Your task to perform on an android device: Open Chrome and go to settings Image 0: 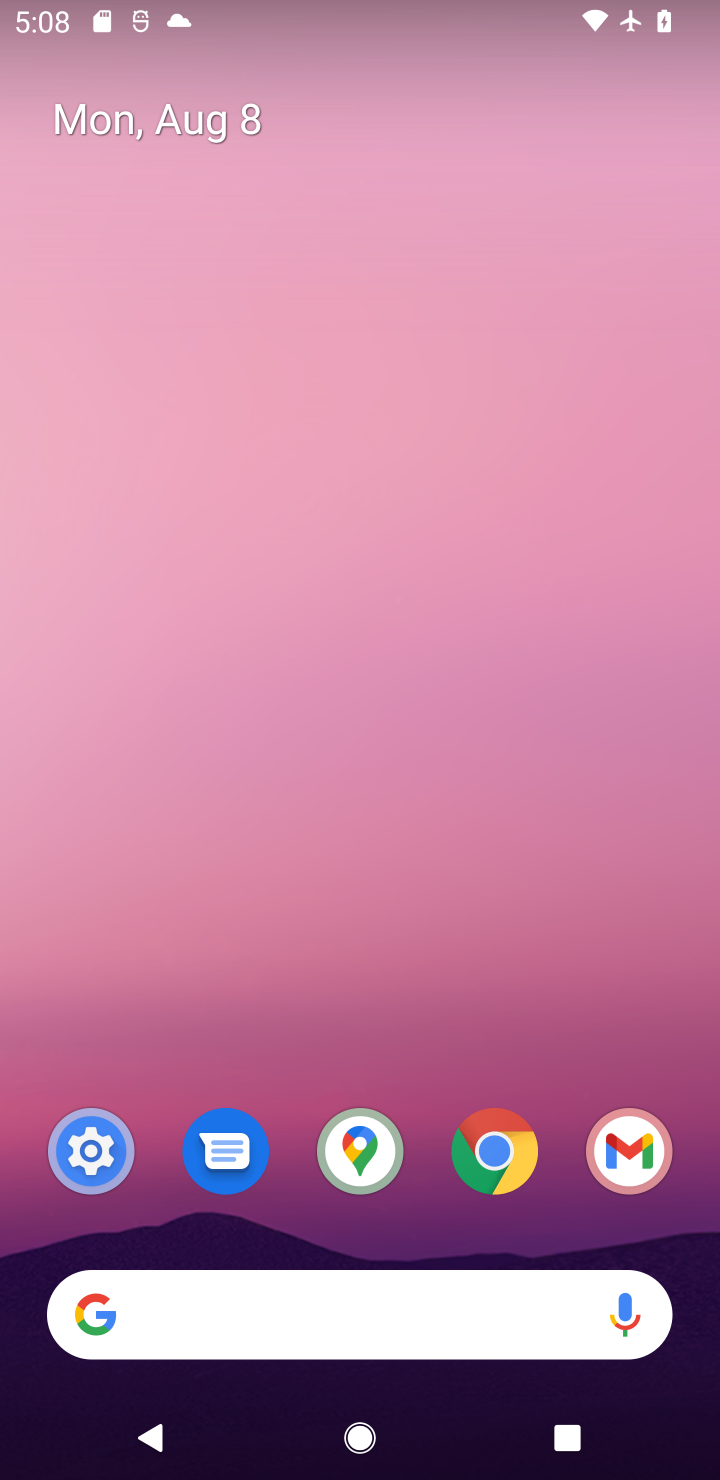
Step 0: click (480, 1157)
Your task to perform on an android device: Open Chrome and go to settings Image 1: 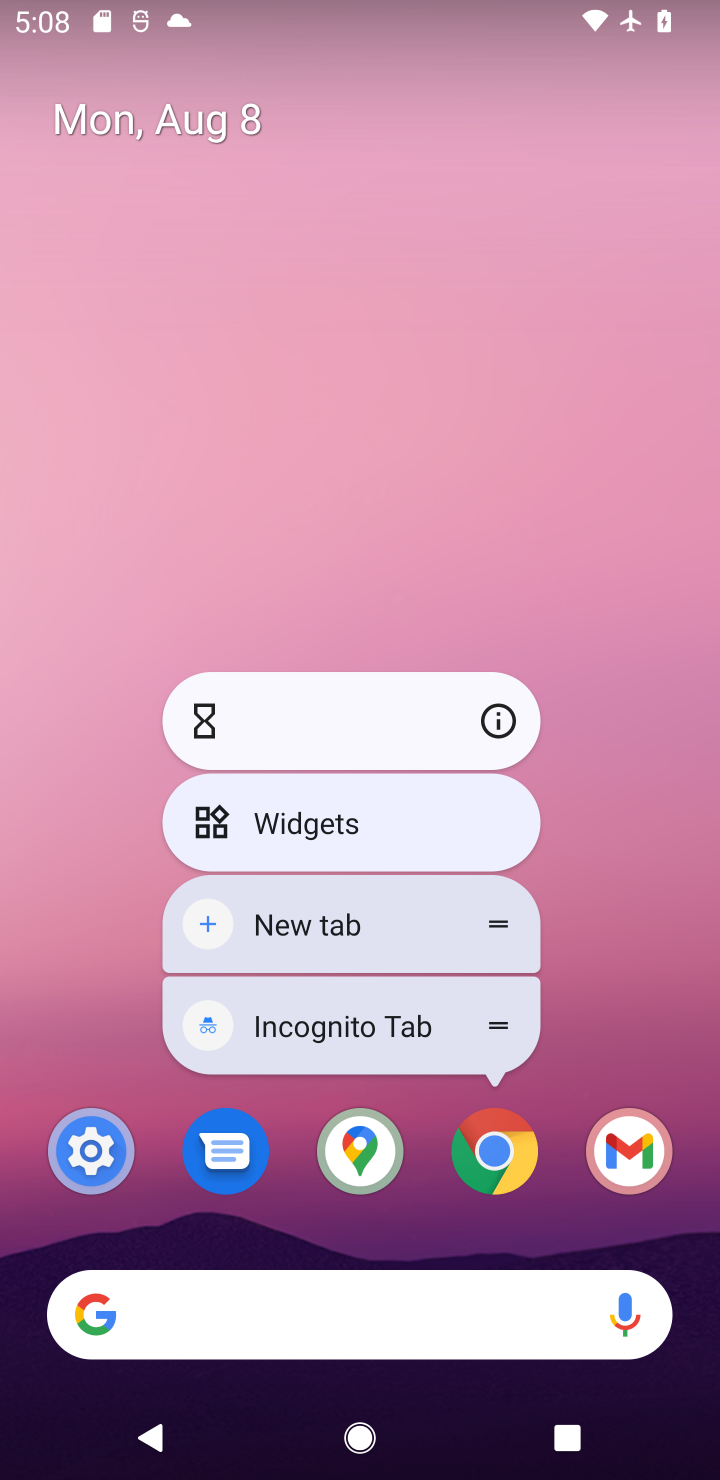
Step 1: click (482, 1155)
Your task to perform on an android device: Open Chrome and go to settings Image 2: 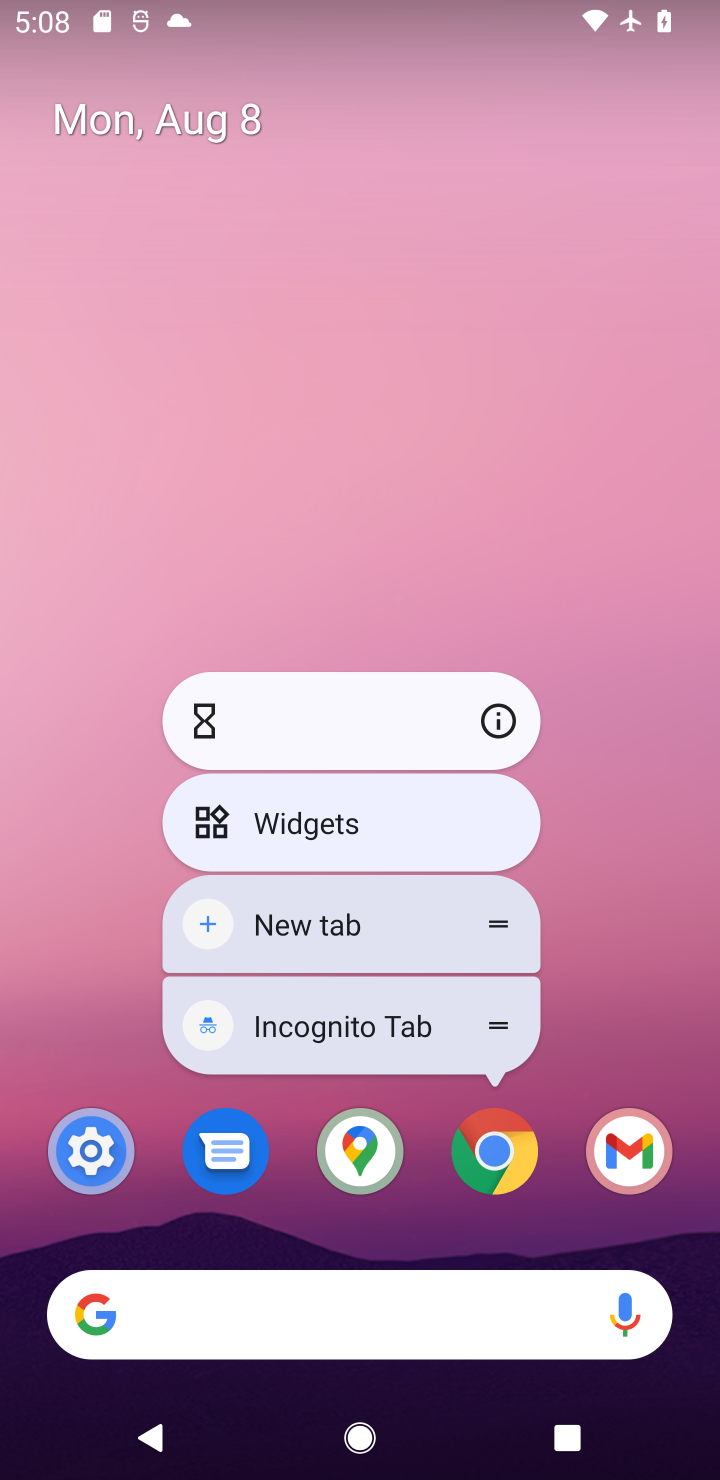
Step 2: click (482, 1155)
Your task to perform on an android device: Open Chrome and go to settings Image 3: 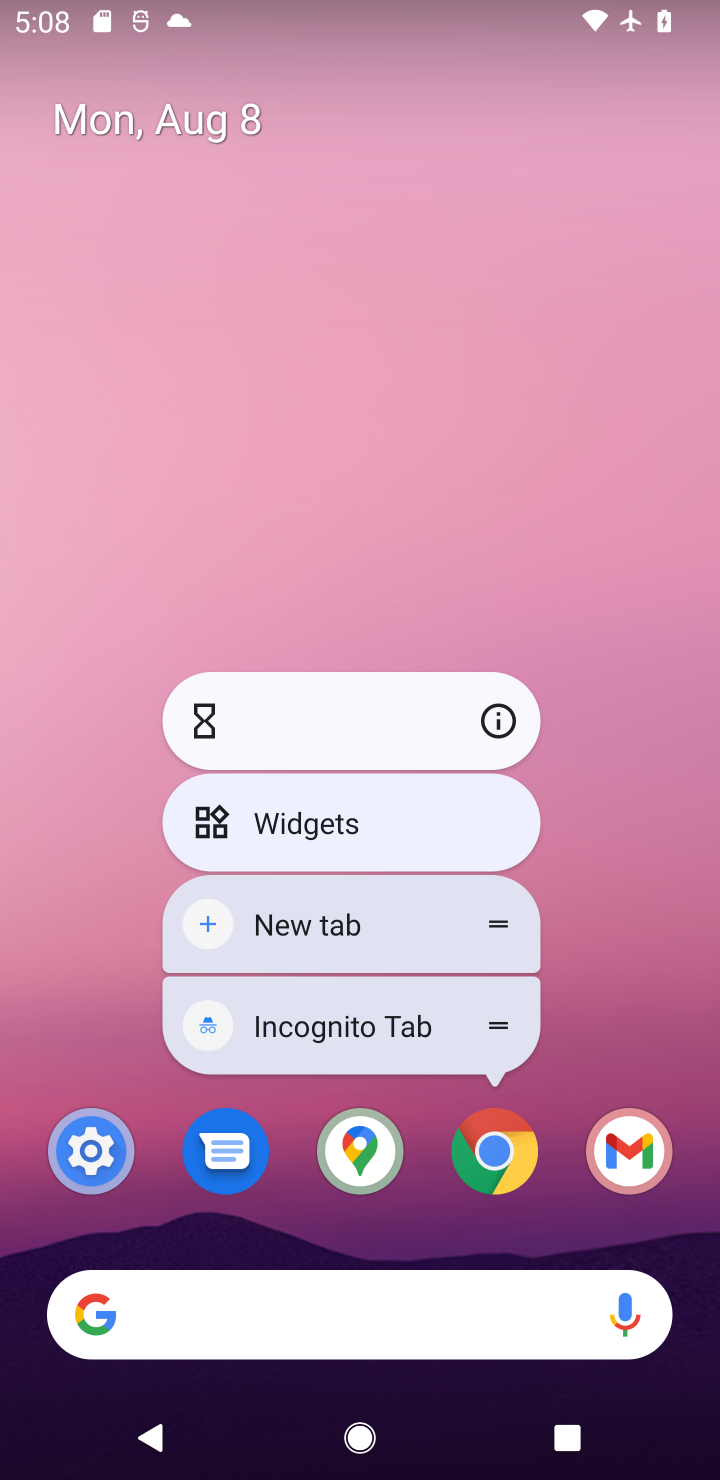
Step 3: click (482, 1155)
Your task to perform on an android device: Open Chrome and go to settings Image 4: 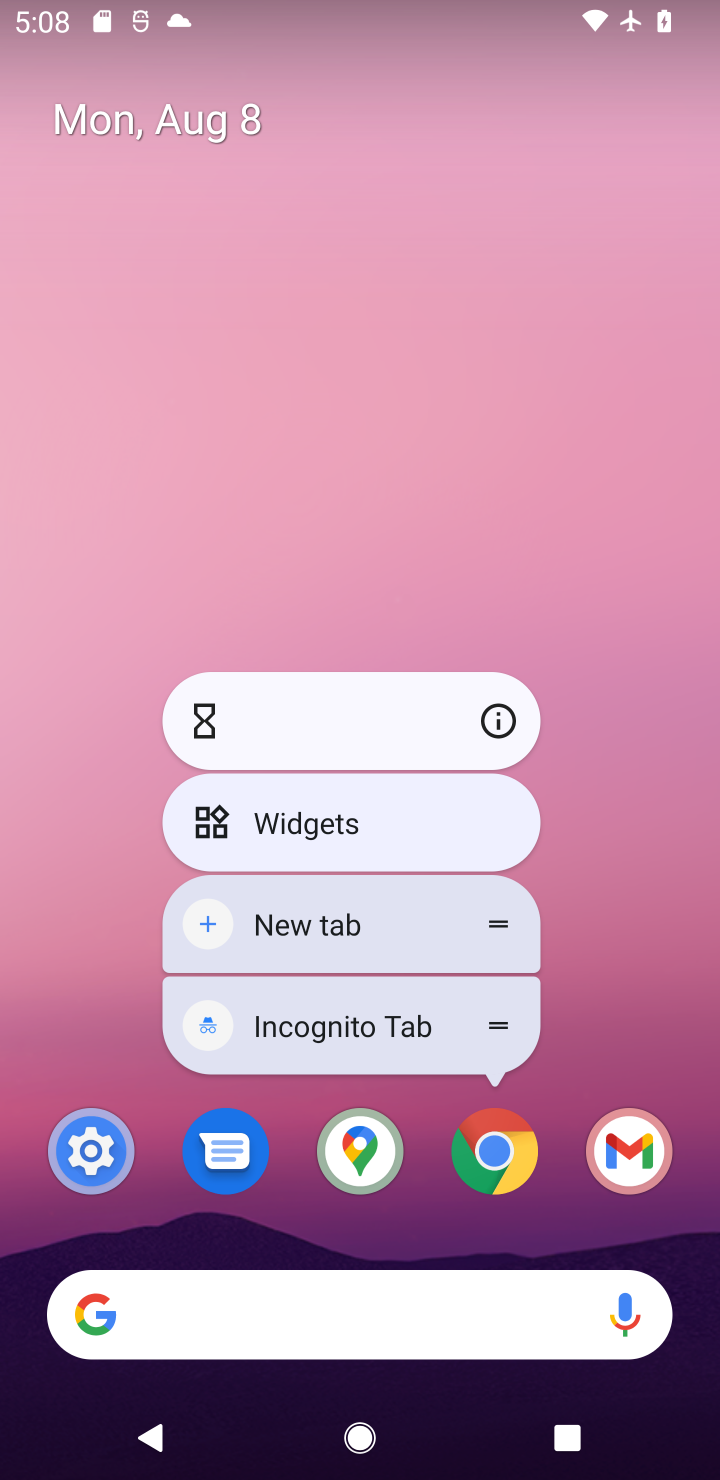
Step 4: click (529, 1175)
Your task to perform on an android device: Open Chrome and go to settings Image 5: 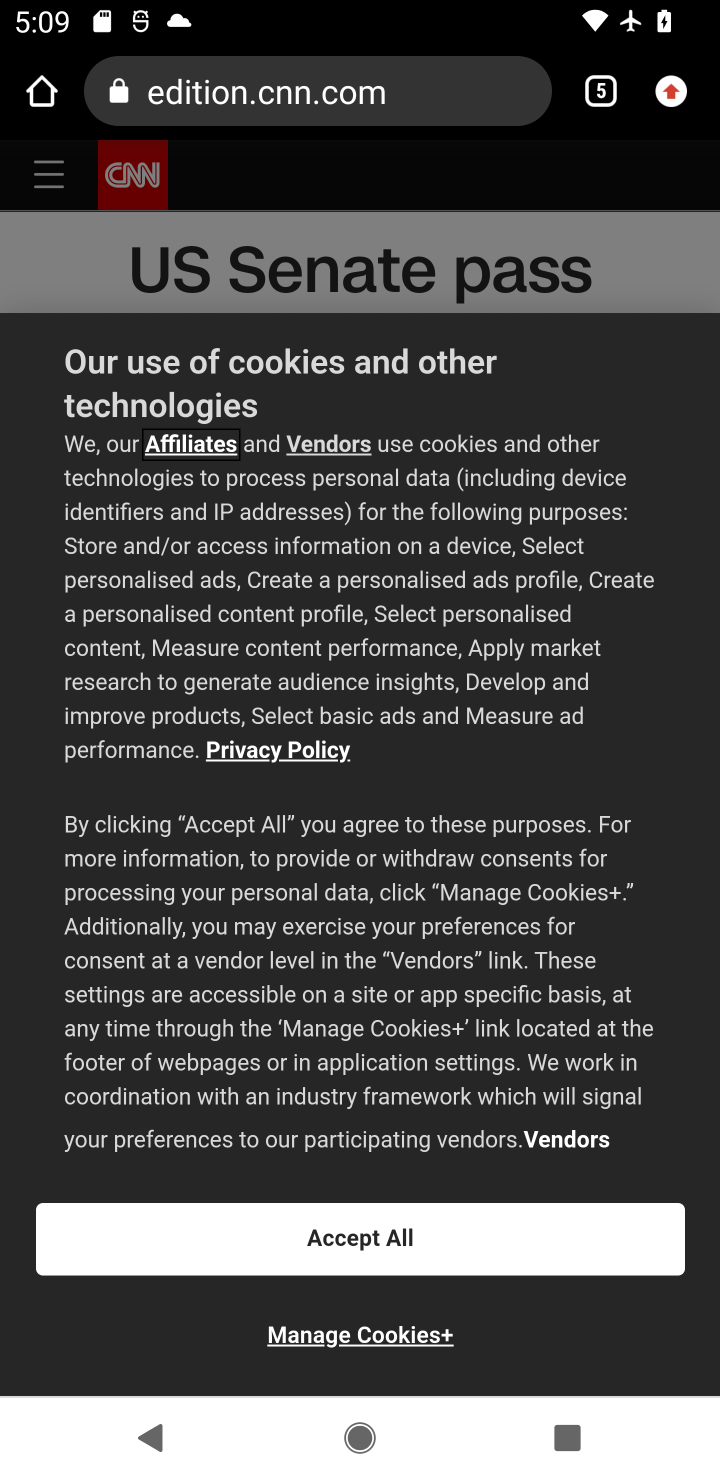
Step 5: click (668, 110)
Your task to perform on an android device: Open Chrome and go to settings Image 6: 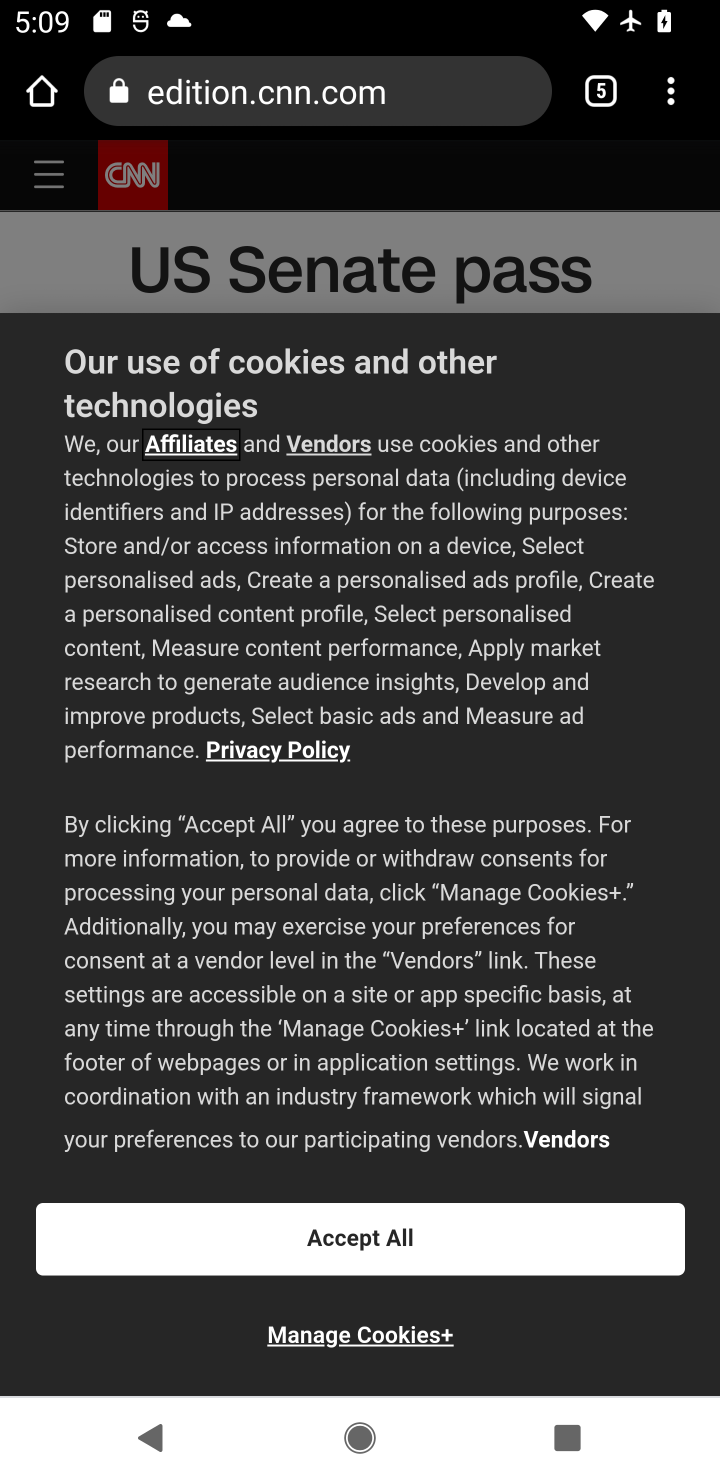
Step 6: click (668, 110)
Your task to perform on an android device: Open Chrome and go to settings Image 7: 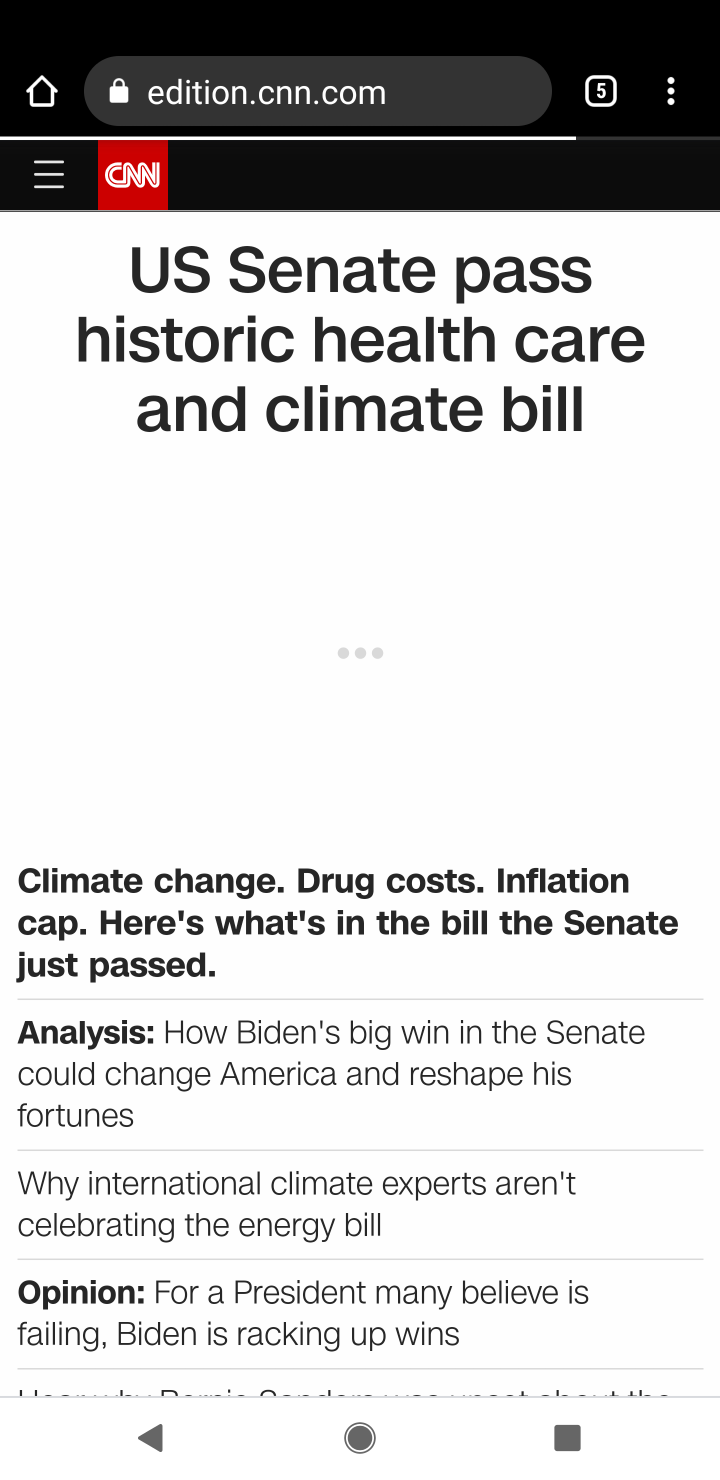
Step 7: task complete